Your task to perform on an android device: What's the weather going to be tomorrow? Image 0: 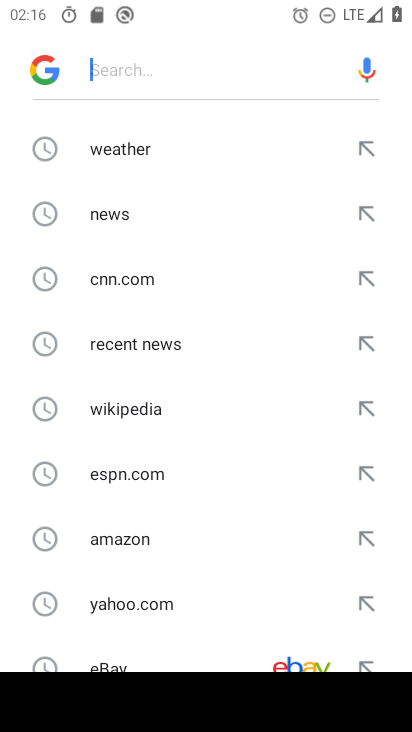
Step 0: press home button
Your task to perform on an android device: What's the weather going to be tomorrow? Image 1: 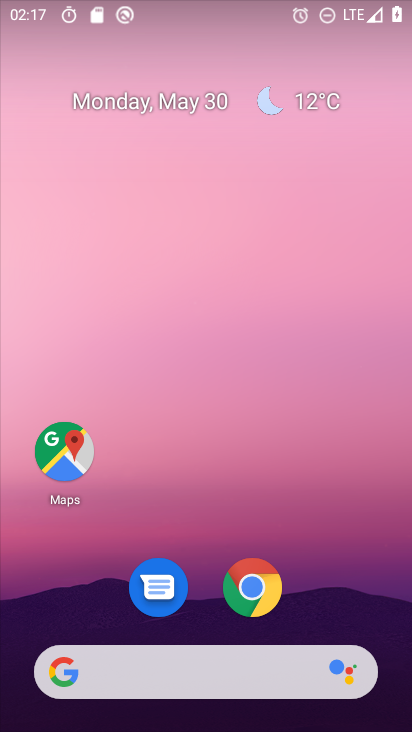
Step 1: click (329, 105)
Your task to perform on an android device: What's the weather going to be tomorrow? Image 2: 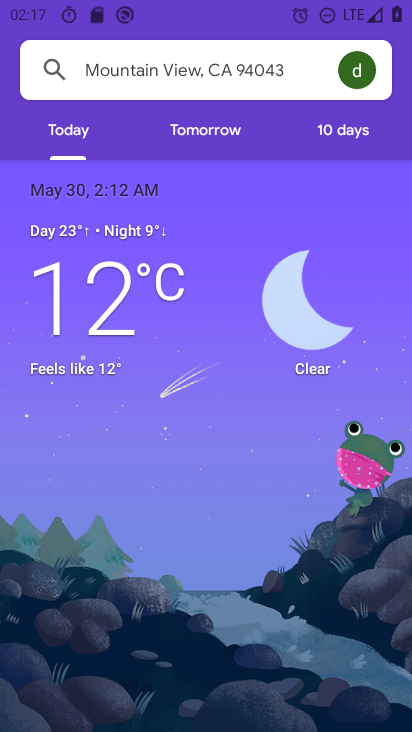
Step 2: click (218, 143)
Your task to perform on an android device: What's the weather going to be tomorrow? Image 3: 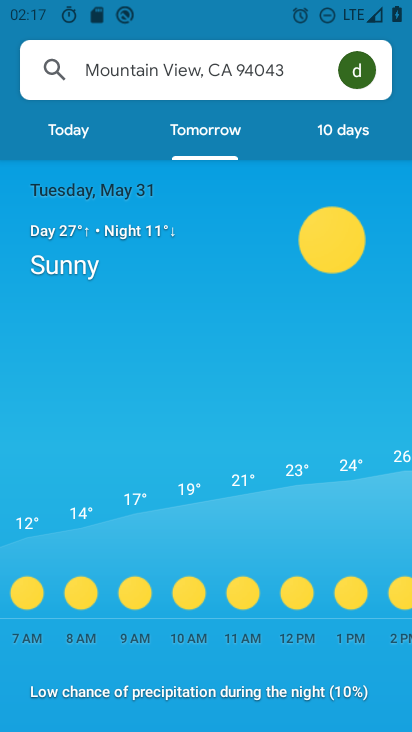
Step 3: task complete